Your task to perform on an android device: Open the stopwatch Image 0: 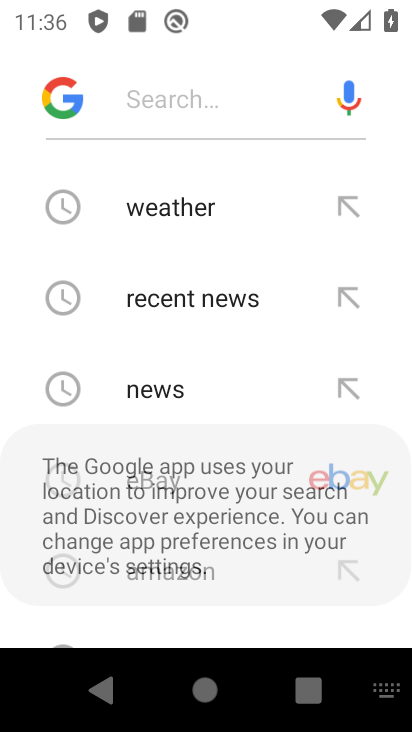
Step 0: press home button
Your task to perform on an android device: Open the stopwatch Image 1: 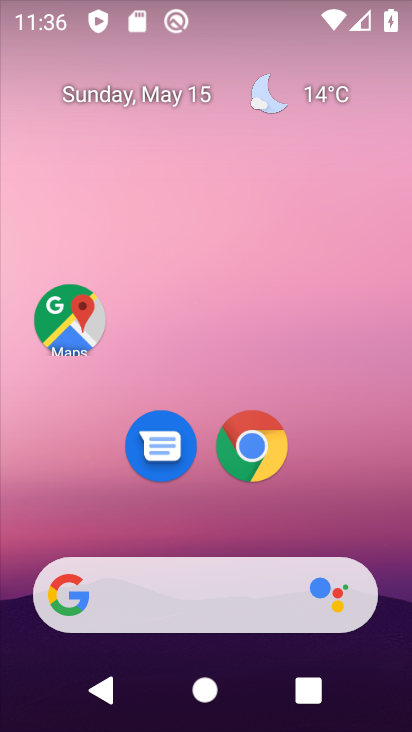
Step 1: drag from (192, 524) to (356, 0)
Your task to perform on an android device: Open the stopwatch Image 2: 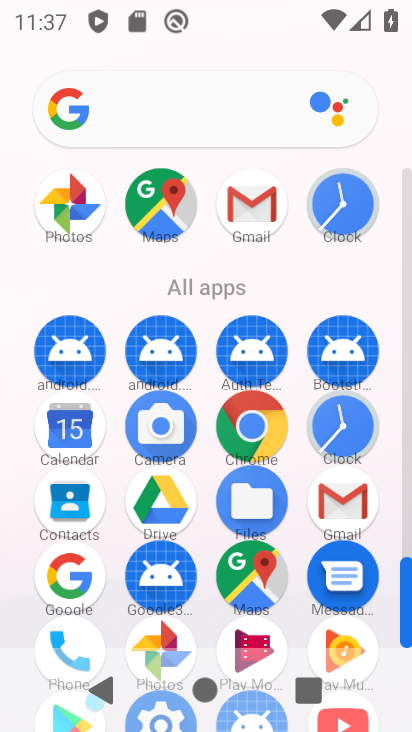
Step 2: drag from (204, 603) to (227, 376)
Your task to perform on an android device: Open the stopwatch Image 3: 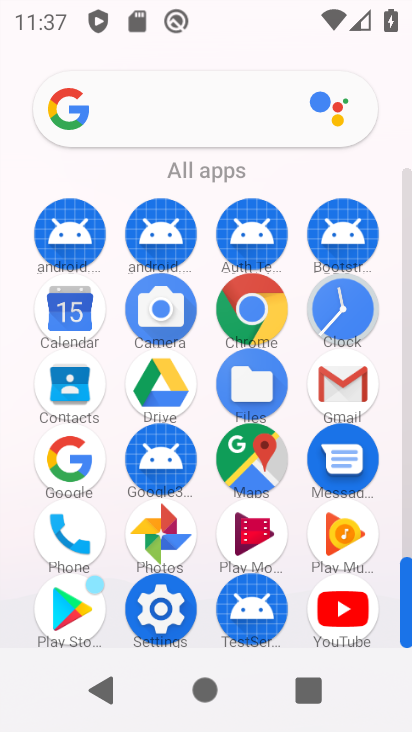
Step 3: click (352, 303)
Your task to perform on an android device: Open the stopwatch Image 4: 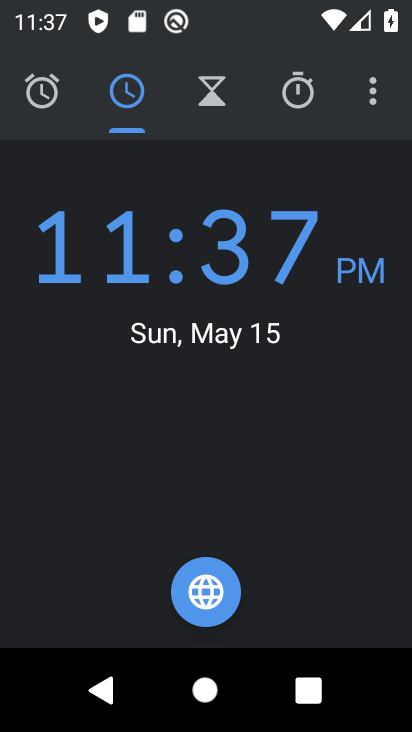
Step 4: click (292, 91)
Your task to perform on an android device: Open the stopwatch Image 5: 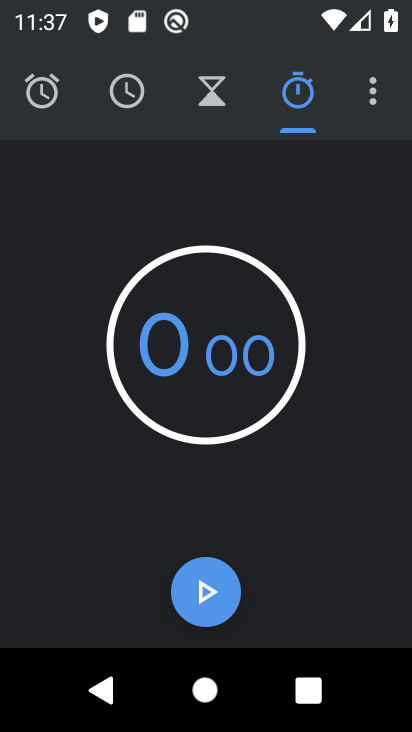
Step 5: task complete